Your task to perform on an android device: Play the last video I watched on Youtube Image 0: 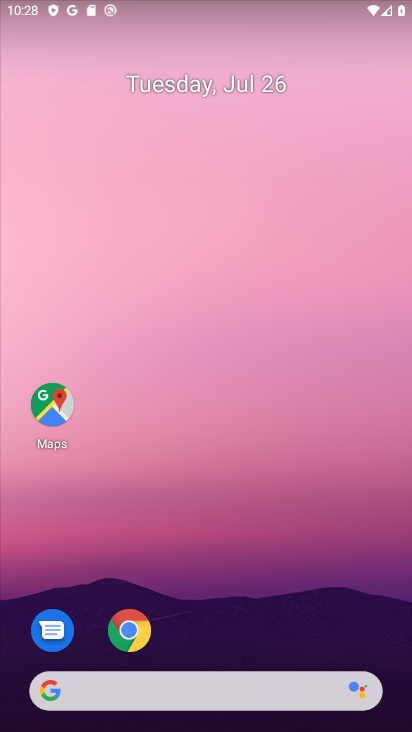
Step 0: drag from (278, 595) to (315, 0)
Your task to perform on an android device: Play the last video I watched on Youtube Image 1: 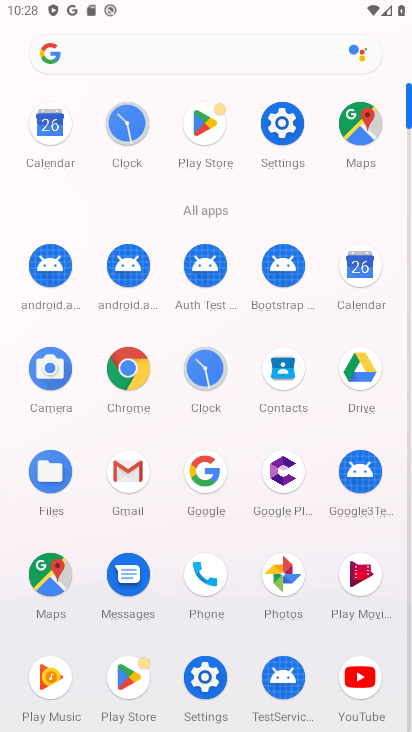
Step 1: click (363, 677)
Your task to perform on an android device: Play the last video I watched on Youtube Image 2: 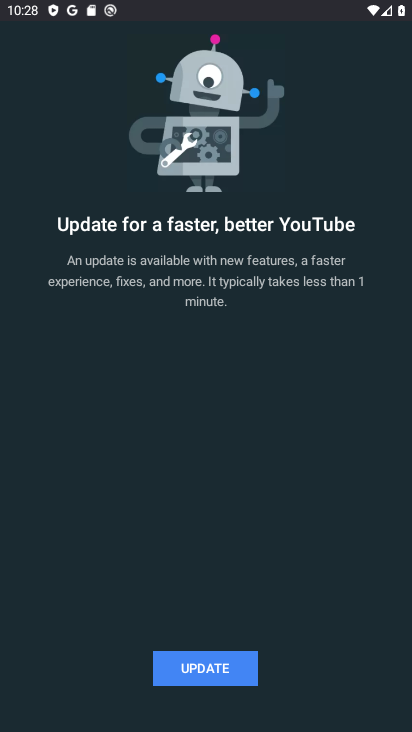
Step 2: task complete